Your task to perform on an android device: check out phone information Image 0: 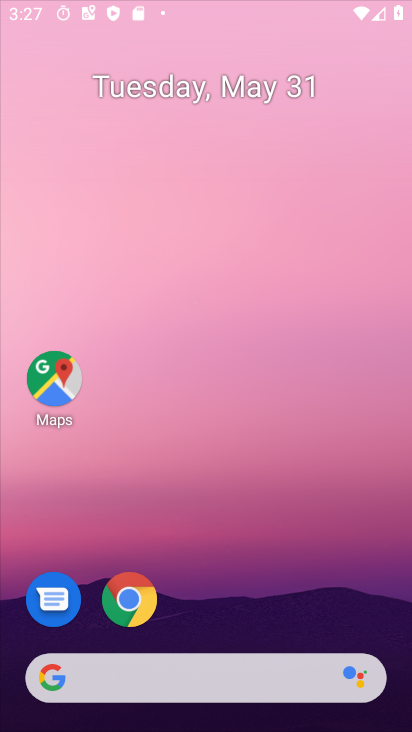
Step 0: press home button
Your task to perform on an android device: check out phone information Image 1: 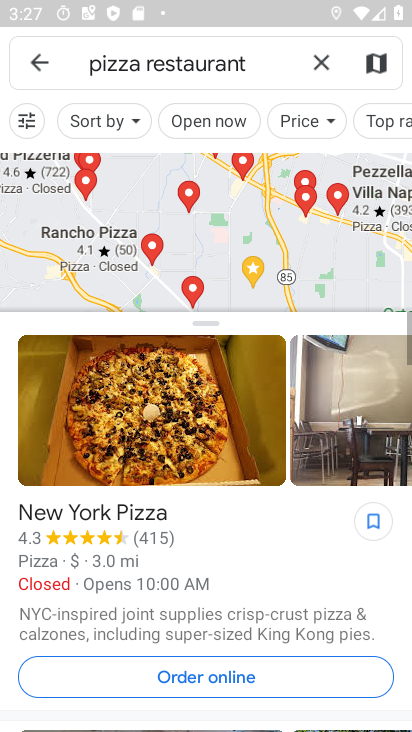
Step 1: drag from (224, 634) to (250, 105)
Your task to perform on an android device: check out phone information Image 2: 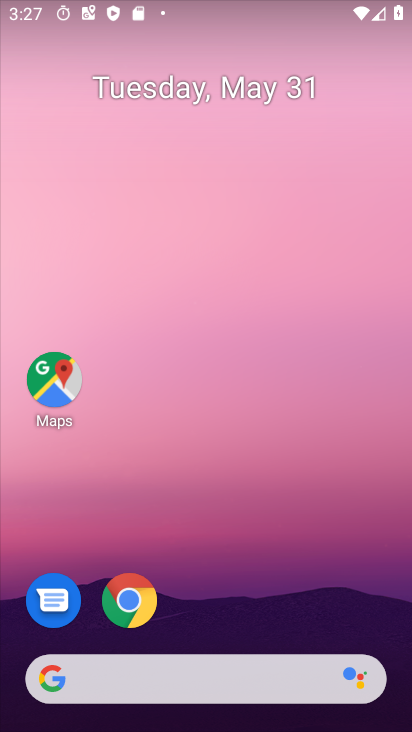
Step 2: drag from (217, 605) to (244, 4)
Your task to perform on an android device: check out phone information Image 3: 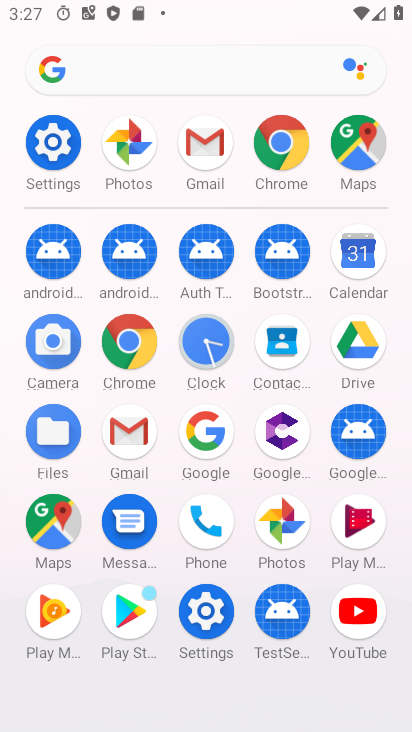
Step 3: click (207, 601)
Your task to perform on an android device: check out phone information Image 4: 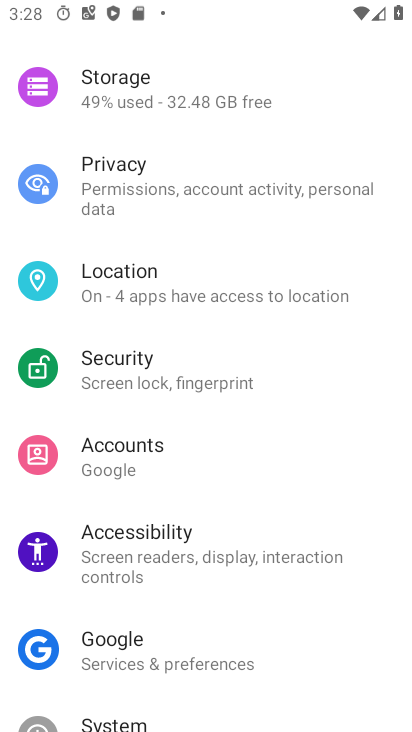
Step 4: drag from (167, 613) to (255, 28)
Your task to perform on an android device: check out phone information Image 5: 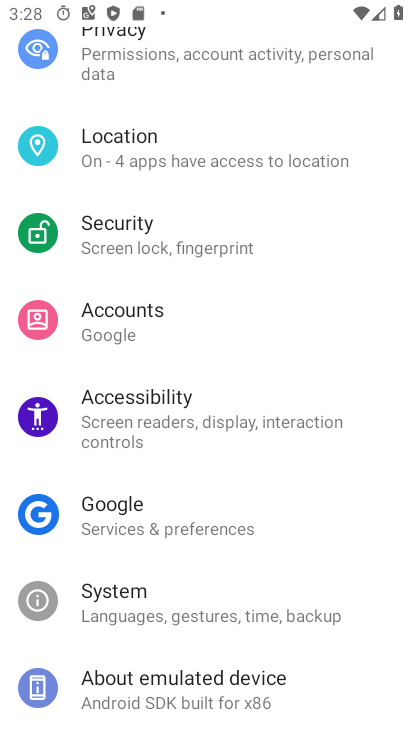
Step 5: click (130, 688)
Your task to perform on an android device: check out phone information Image 6: 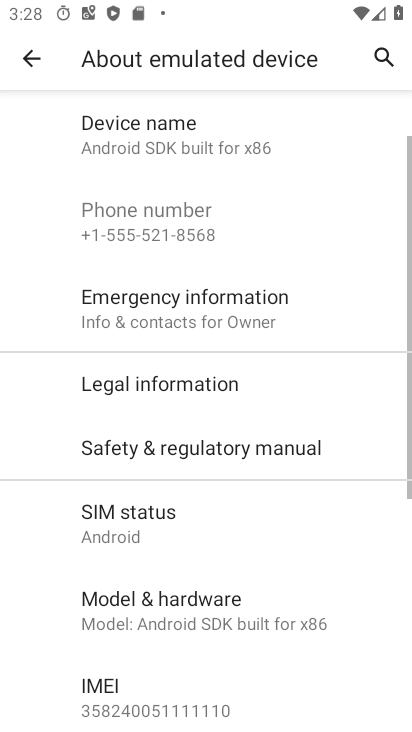
Step 6: task complete